Your task to perform on an android device: Go to Amazon Image 0: 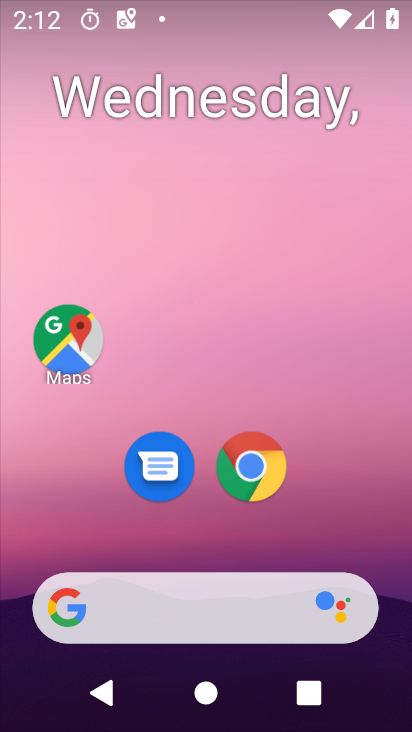
Step 0: click (243, 482)
Your task to perform on an android device: Go to Amazon Image 1: 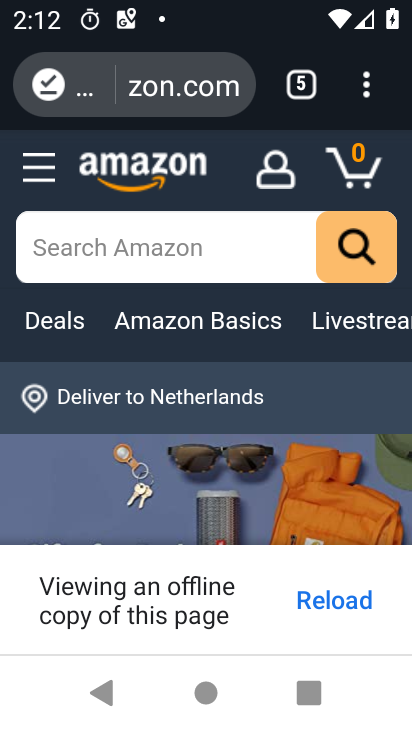
Step 1: task complete